Your task to perform on an android device: View the shopping cart on ebay.com. Add usb-c to usb-b to the cart on ebay.com Image 0: 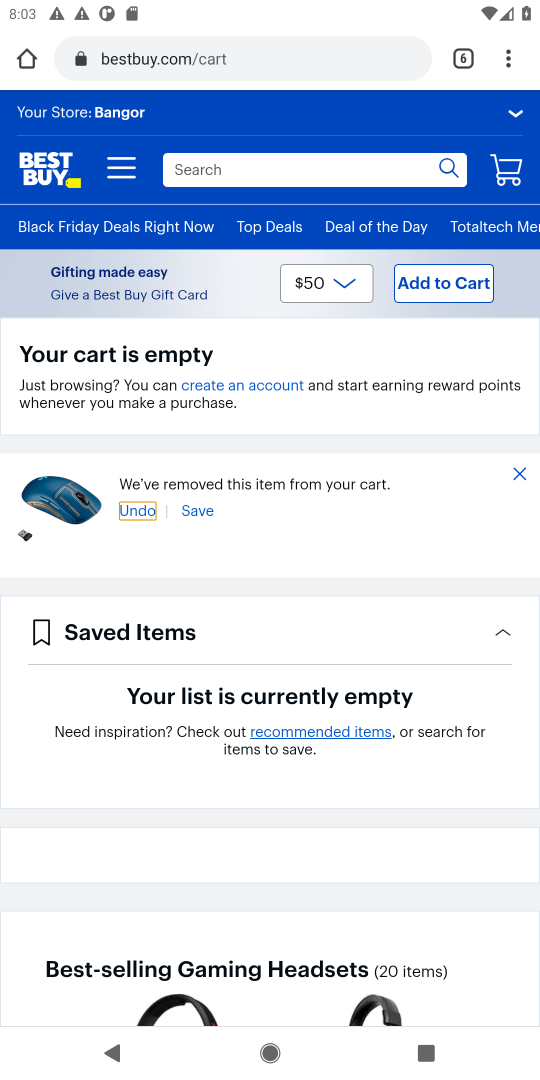
Step 0: click (465, 57)
Your task to perform on an android device: View the shopping cart on ebay.com. Add usb-c to usb-b to the cart on ebay.com Image 1: 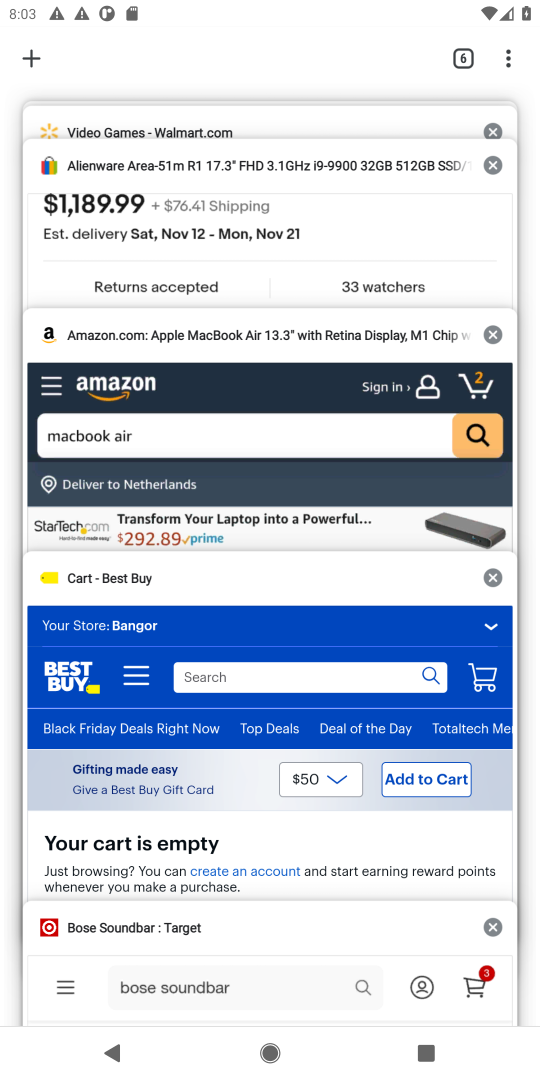
Step 1: drag from (219, 119) to (166, 467)
Your task to perform on an android device: View the shopping cart on ebay.com. Add usb-c to usb-b to the cart on ebay.com Image 2: 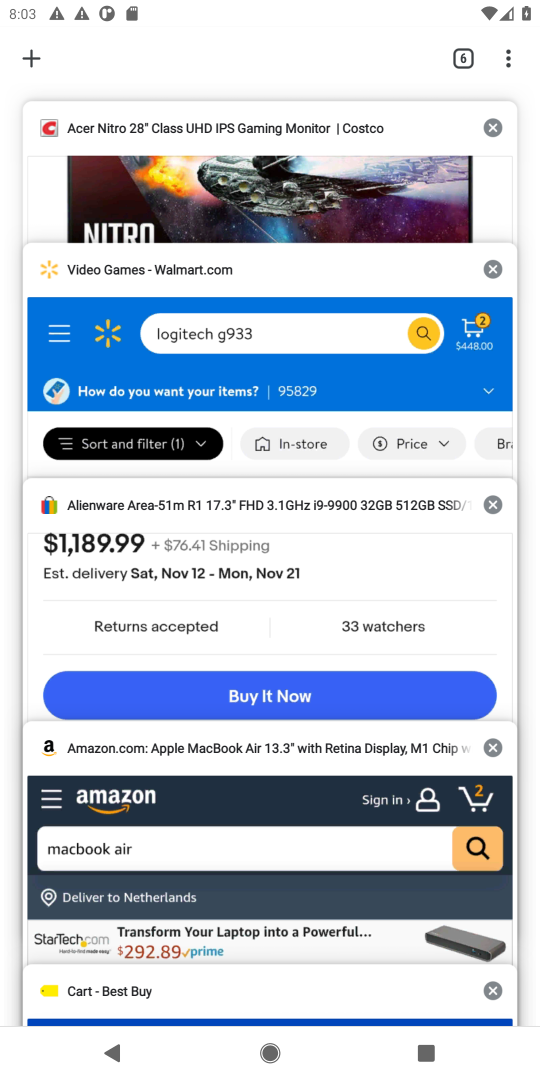
Step 2: click (209, 571)
Your task to perform on an android device: View the shopping cart on ebay.com. Add usb-c to usb-b to the cart on ebay.com Image 3: 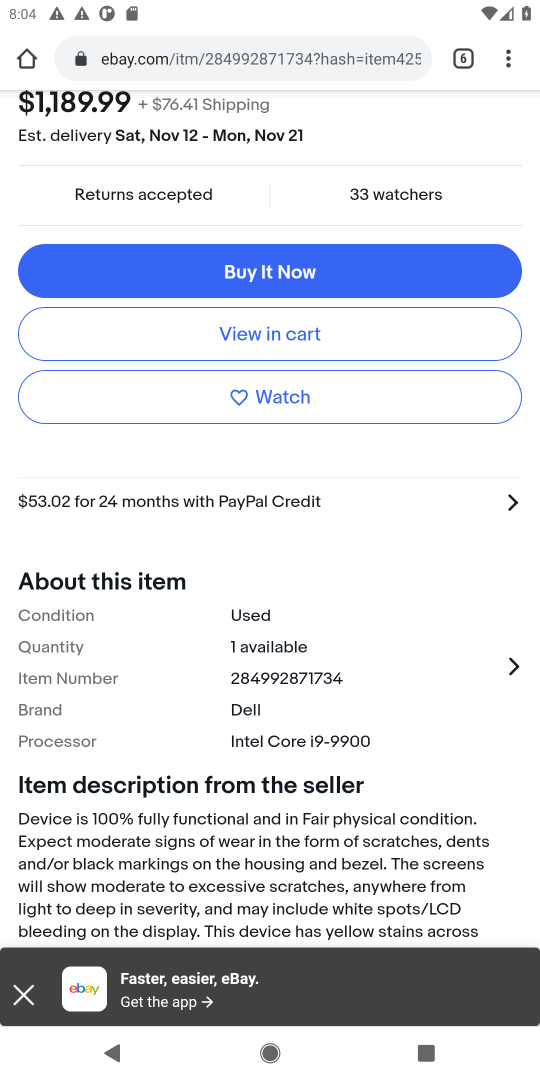
Step 3: drag from (439, 181) to (447, 764)
Your task to perform on an android device: View the shopping cart on ebay.com. Add usb-c to usb-b to the cart on ebay.com Image 4: 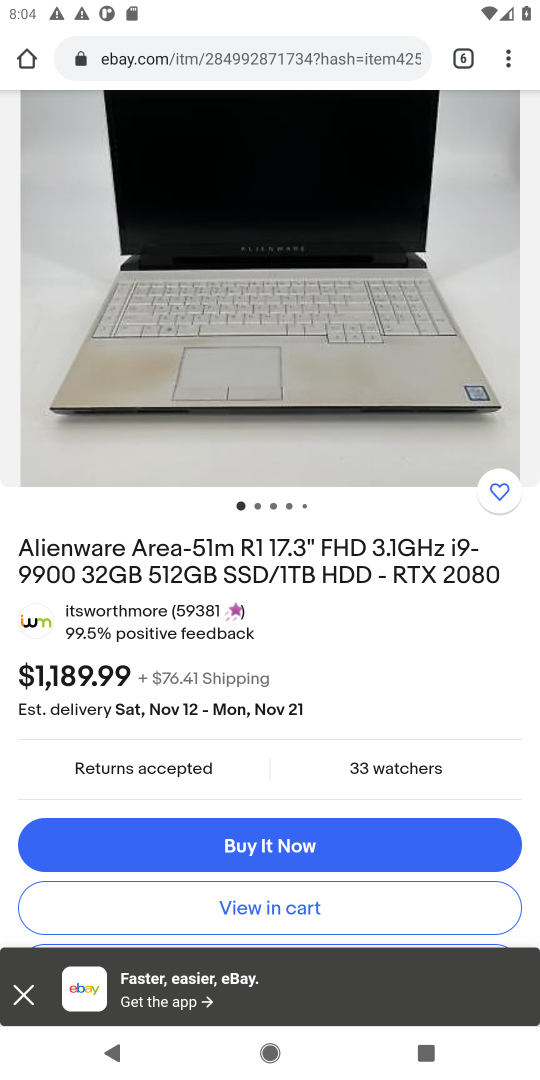
Step 4: drag from (403, 330) to (381, 965)
Your task to perform on an android device: View the shopping cart on ebay.com. Add usb-c to usb-b to the cart on ebay.com Image 5: 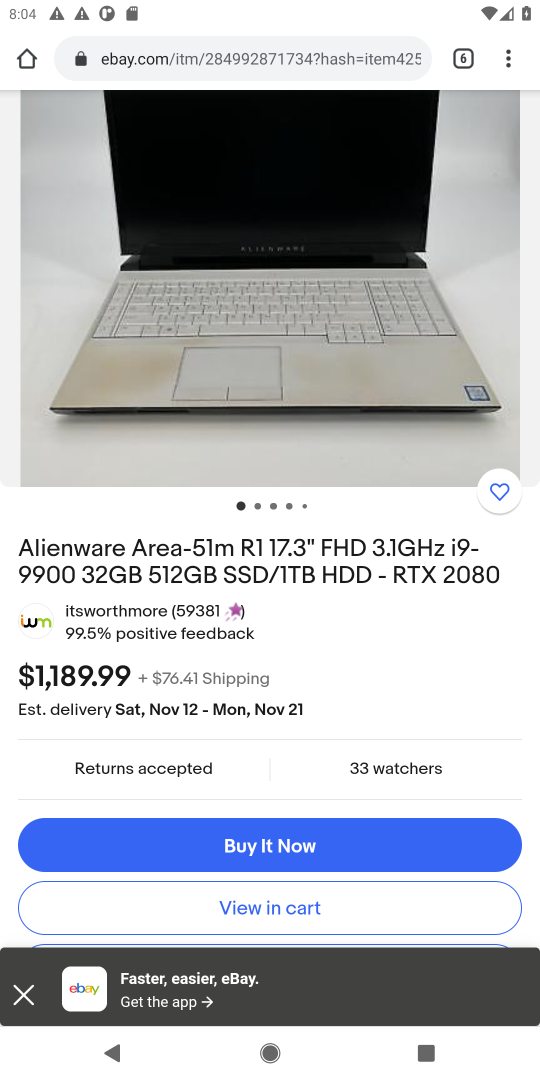
Step 5: drag from (390, 526) to (391, 1064)
Your task to perform on an android device: View the shopping cart on ebay.com. Add usb-c to usb-b to the cart on ebay.com Image 6: 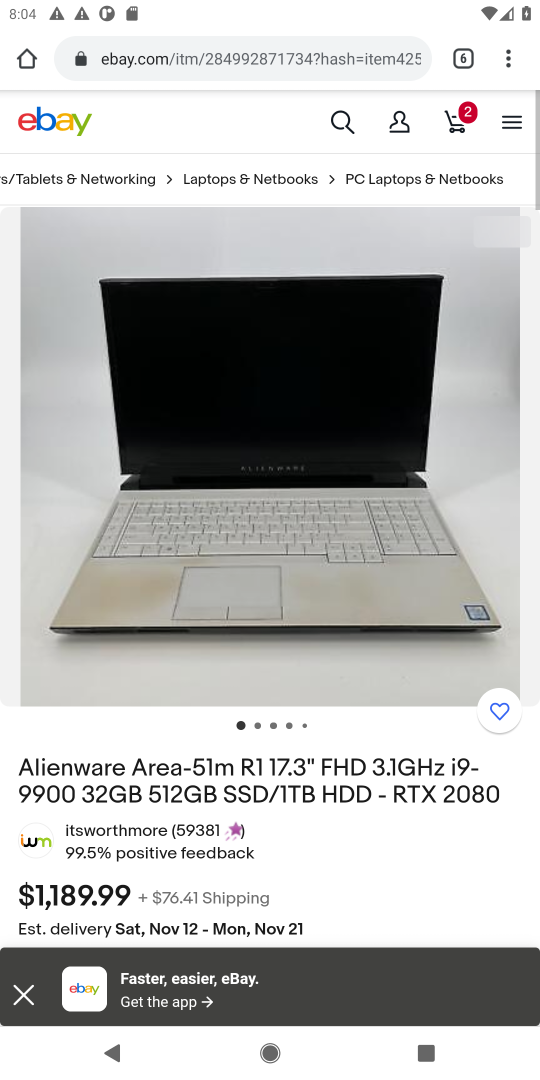
Step 6: drag from (393, 426) to (382, 842)
Your task to perform on an android device: View the shopping cart on ebay.com. Add usb-c to usb-b to the cart on ebay.com Image 7: 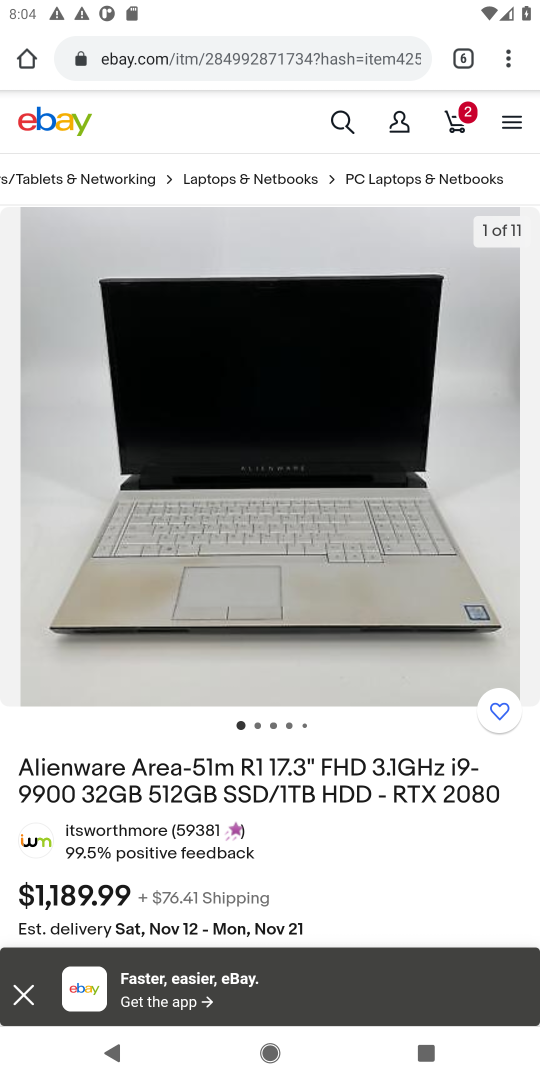
Step 7: click (337, 116)
Your task to perform on an android device: View the shopping cart on ebay.com. Add usb-c to usb-b to the cart on ebay.com Image 8: 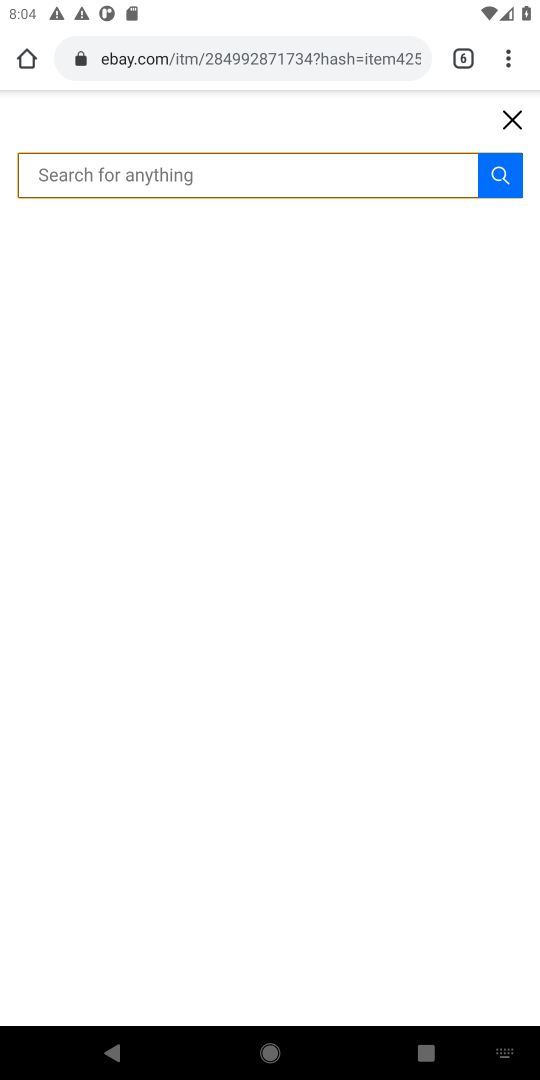
Step 8: type "usb-c to usb-b"
Your task to perform on an android device: View the shopping cart on ebay.com. Add usb-c to usb-b to the cart on ebay.com Image 9: 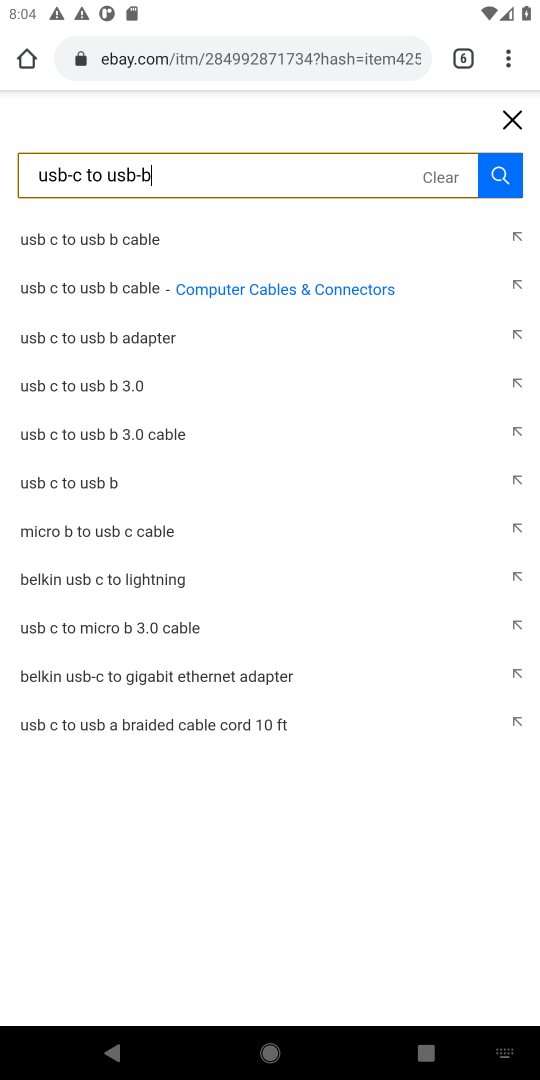
Step 9: click (132, 286)
Your task to perform on an android device: View the shopping cart on ebay.com. Add usb-c to usb-b to the cart on ebay.com Image 10: 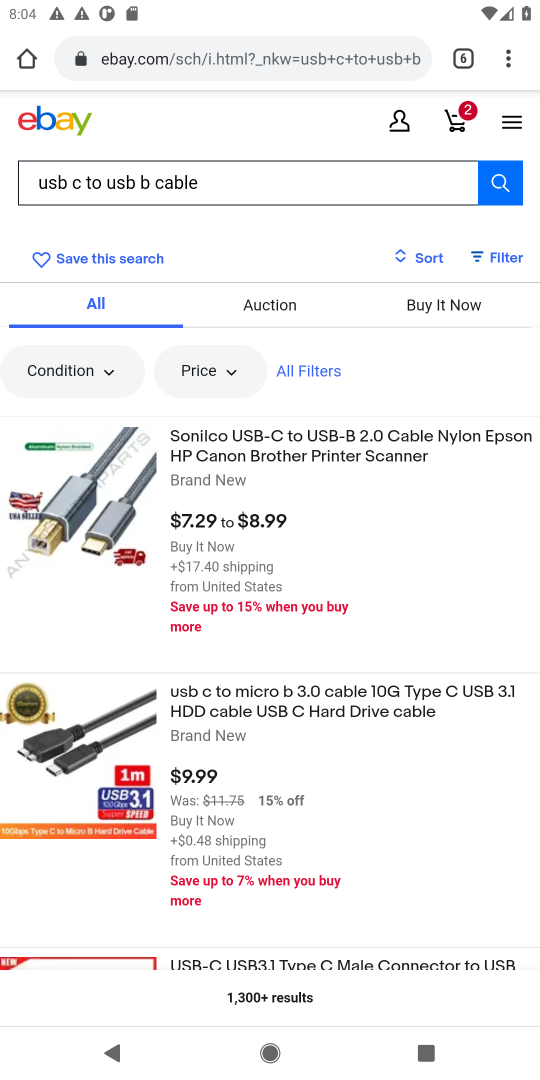
Step 10: click (332, 445)
Your task to perform on an android device: View the shopping cart on ebay.com. Add usb-c to usb-b to the cart on ebay.com Image 11: 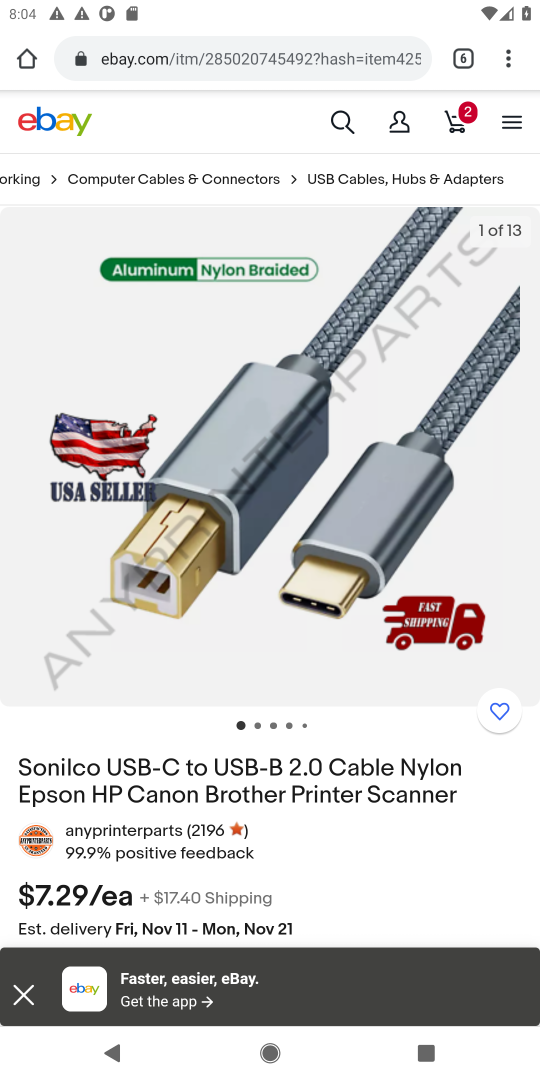
Step 11: click (23, 994)
Your task to perform on an android device: View the shopping cart on ebay.com. Add usb-c to usb-b to the cart on ebay.com Image 12: 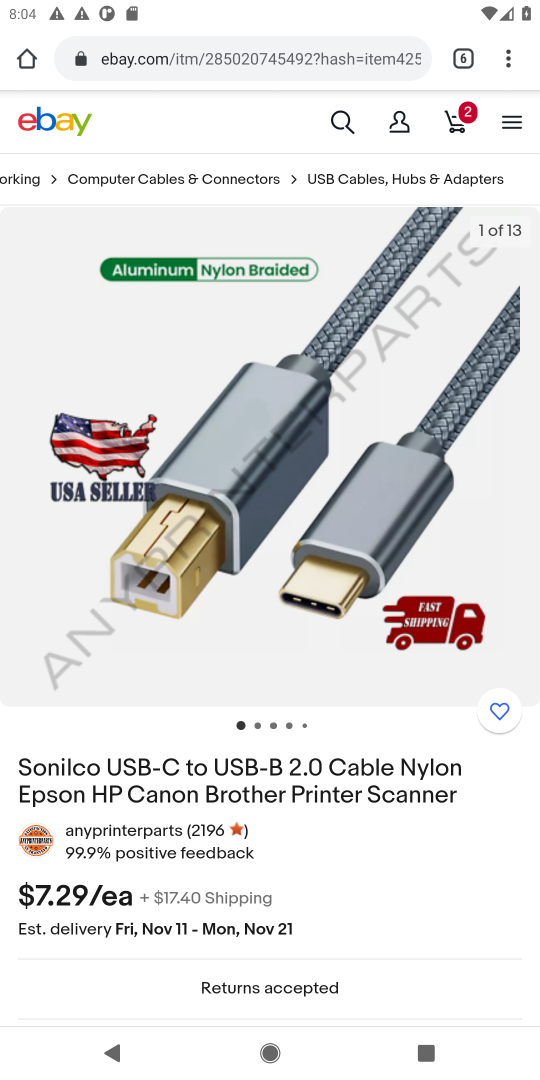
Step 12: drag from (366, 883) to (430, 256)
Your task to perform on an android device: View the shopping cart on ebay.com. Add usb-c to usb-b to the cart on ebay.com Image 13: 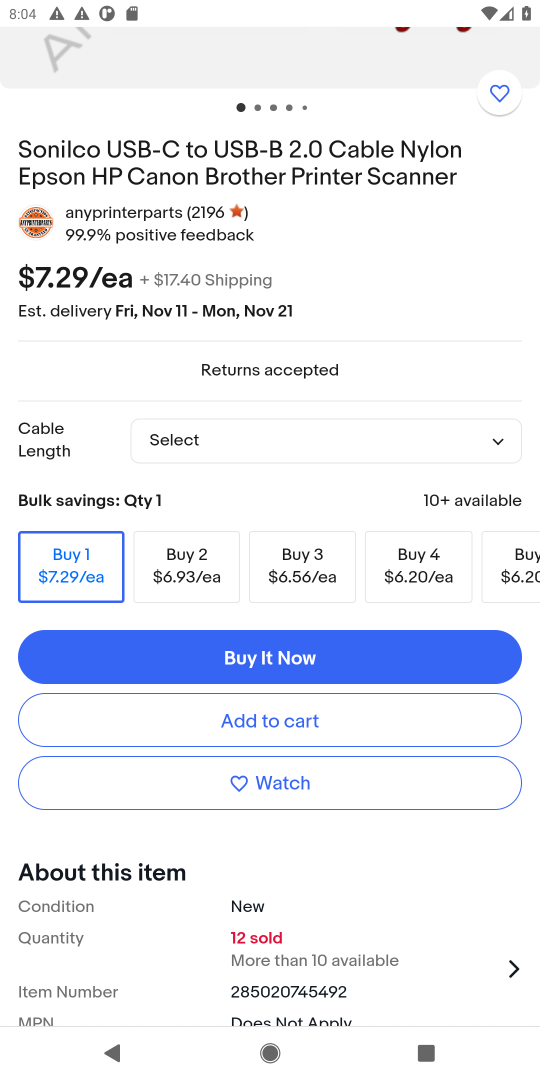
Step 13: click (266, 724)
Your task to perform on an android device: View the shopping cart on ebay.com. Add usb-c to usb-b to the cart on ebay.com Image 14: 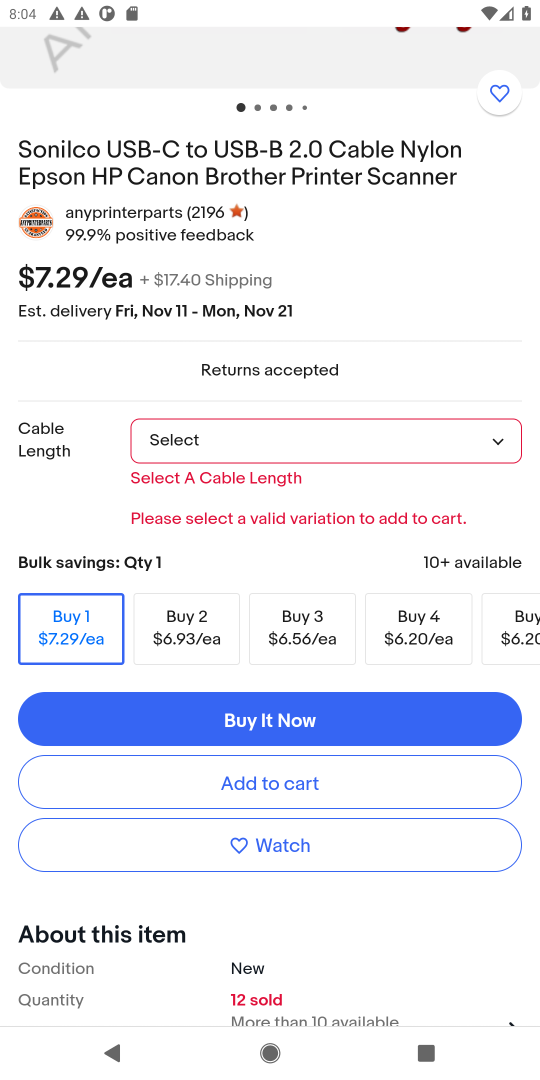
Step 14: task complete